Your task to perform on an android device: Check the news Image 0: 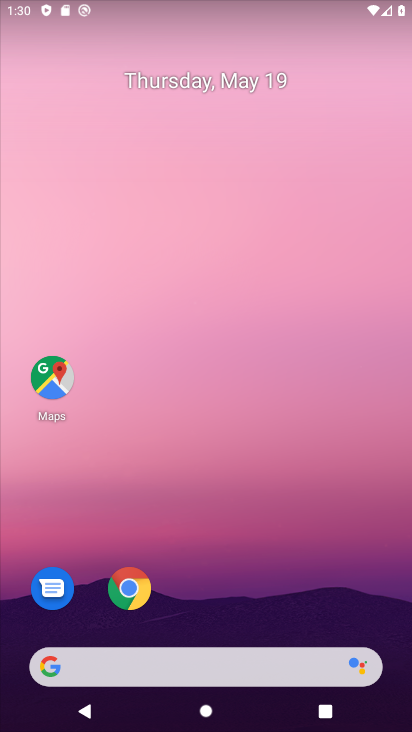
Step 0: drag from (307, 601) to (238, 47)
Your task to perform on an android device: Check the news Image 1: 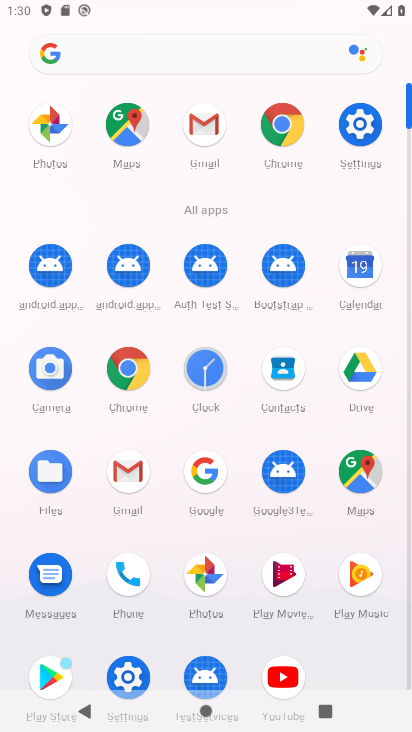
Step 1: click (296, 120)
Your task to perform on an android device: Check the news Image 2: 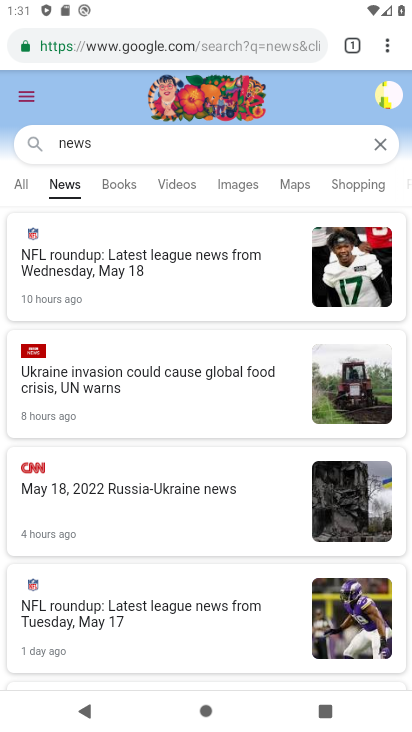
Step 2: task complete